Your task to perform on an android device: Toggle the flashlight Image 0: 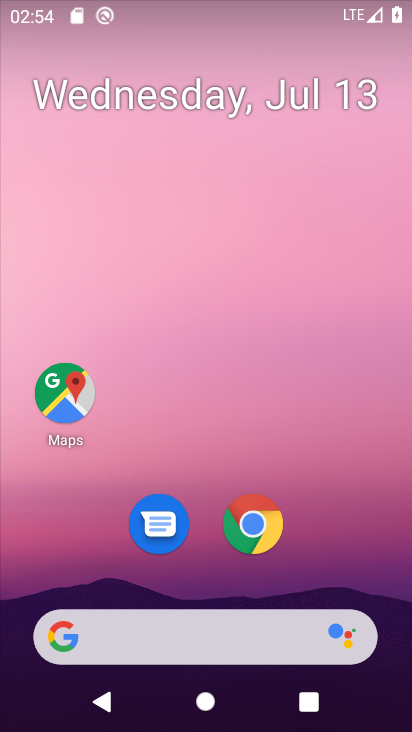
Step 0: drag from (316, 541) to (349, 25)
Your task to perform on an android device: Toggle the flashlight Image 1: 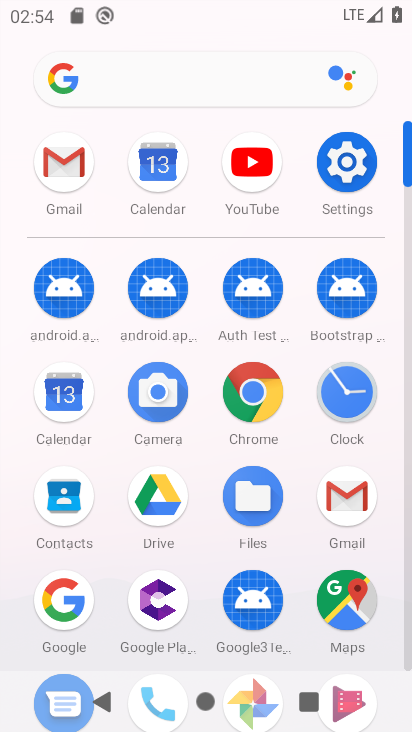
Step 1: click (337, 166)
Your task to perform on an android device: Toggle the flashlight Image 2: 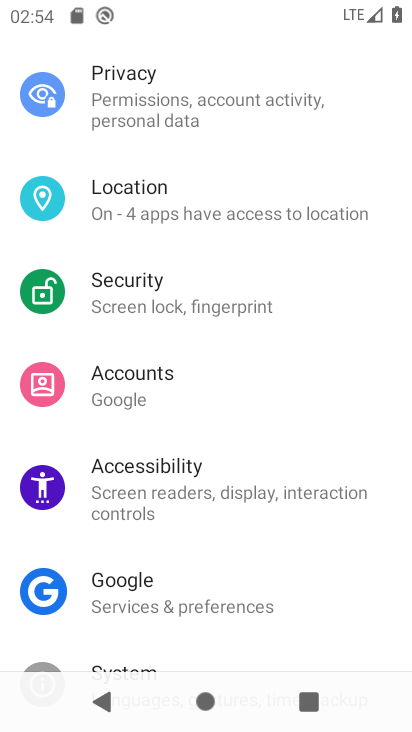
Step 2: drag from (245, 172) to (235, 603)
Your task to perform on an android device: Toggle the flashlight Image 3: 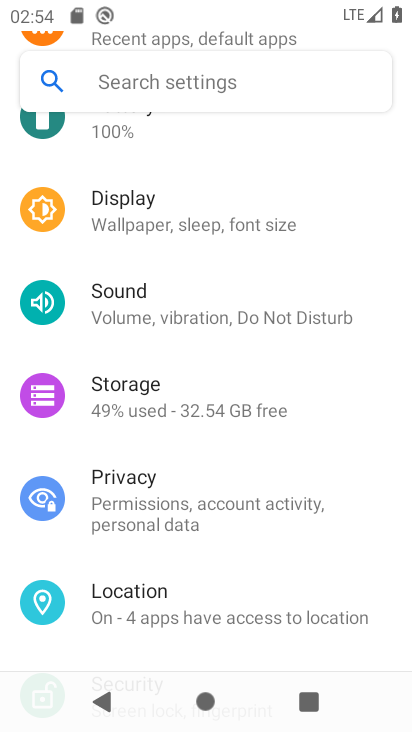
Step 3: drag from (231, 275) to (269, 657)
Your task to perform on an android device: Toggle the flashlight Image 4: 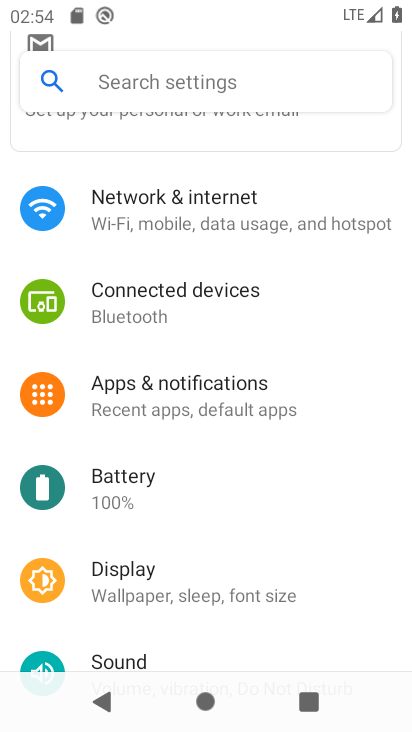
Step 4: drag from (236, 307) to (263, 607)
Your task to perform on an android device: Toggle the flashlight Image 5: 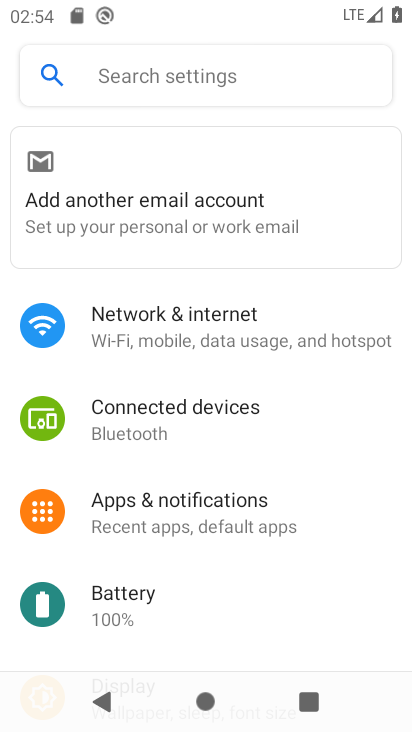
Step 5: click (237, 72)
Your task to perform on an android device: Toggle the flashlight Image 6: 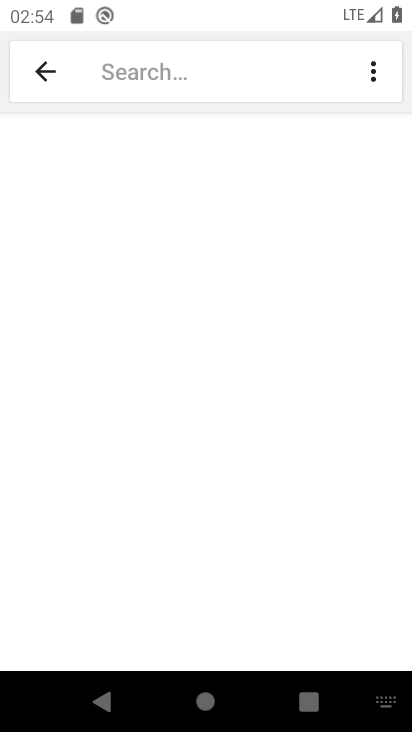
Step 6: type "Flashlight"
Your task to perform on an android device: Toggle the flashlight Image 7: 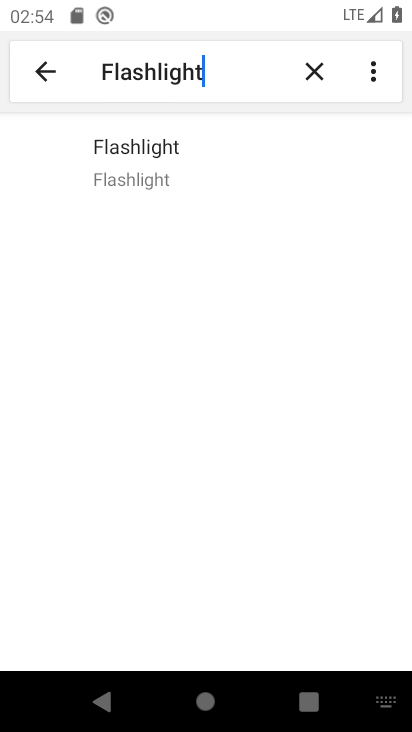
Step 7: click (158, 162)
Your task to perform on an android device: Toggle the flashlight Image 8: 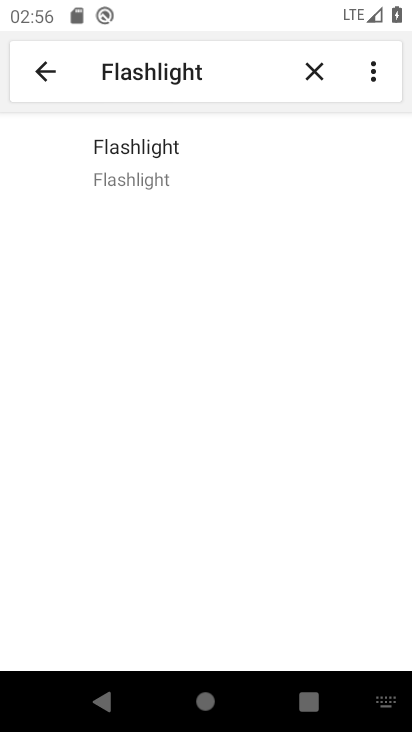
Step 8: task complete